Your task to perform on an android device: What's the news in Sri Lanka? Image 0: 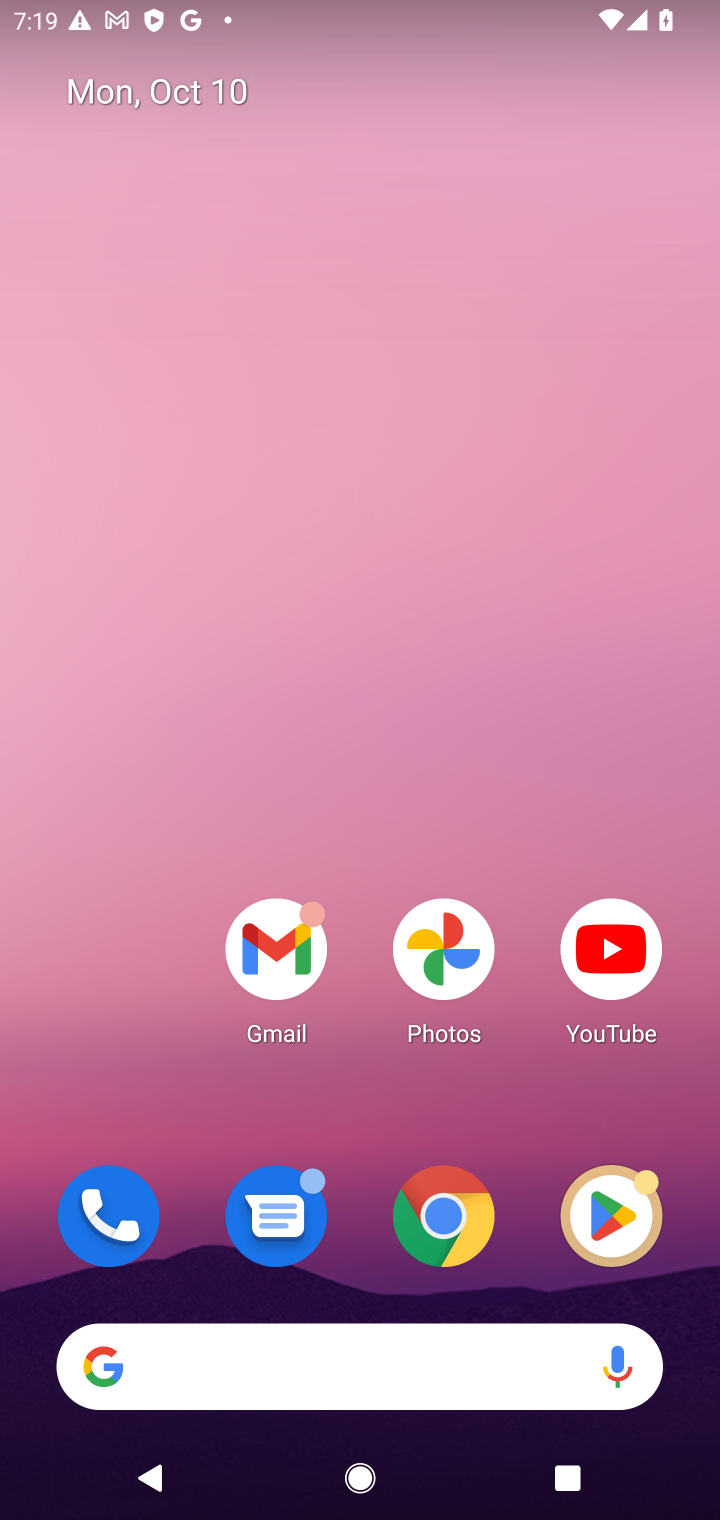
Step 0: drag from (254, 1338) to (420, 218)
Your task to perform on an android device: What's the news in Sri Lanka? Image 1: 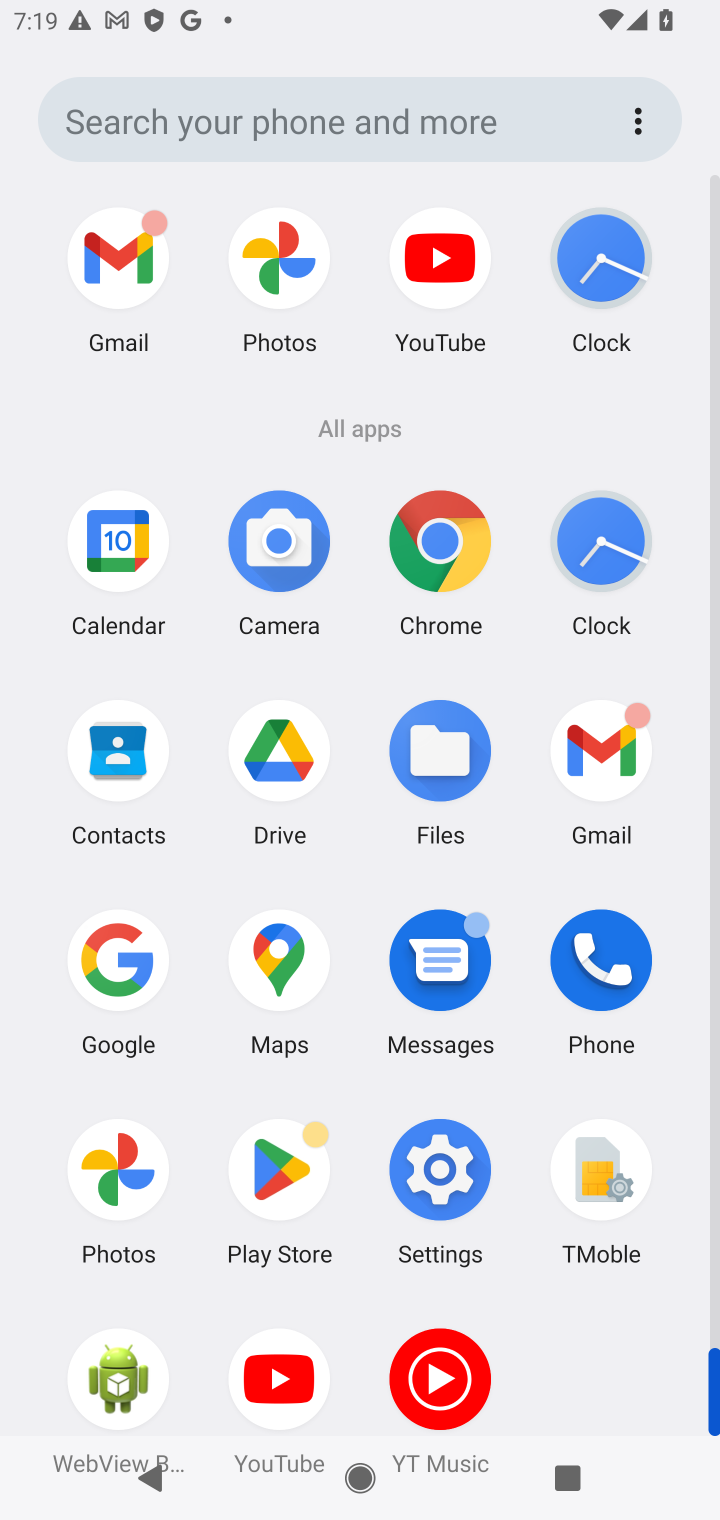
Step 1: click (109, 937)
Your task to perform on an android device: What's the news in Sri Lanka? Image 2: 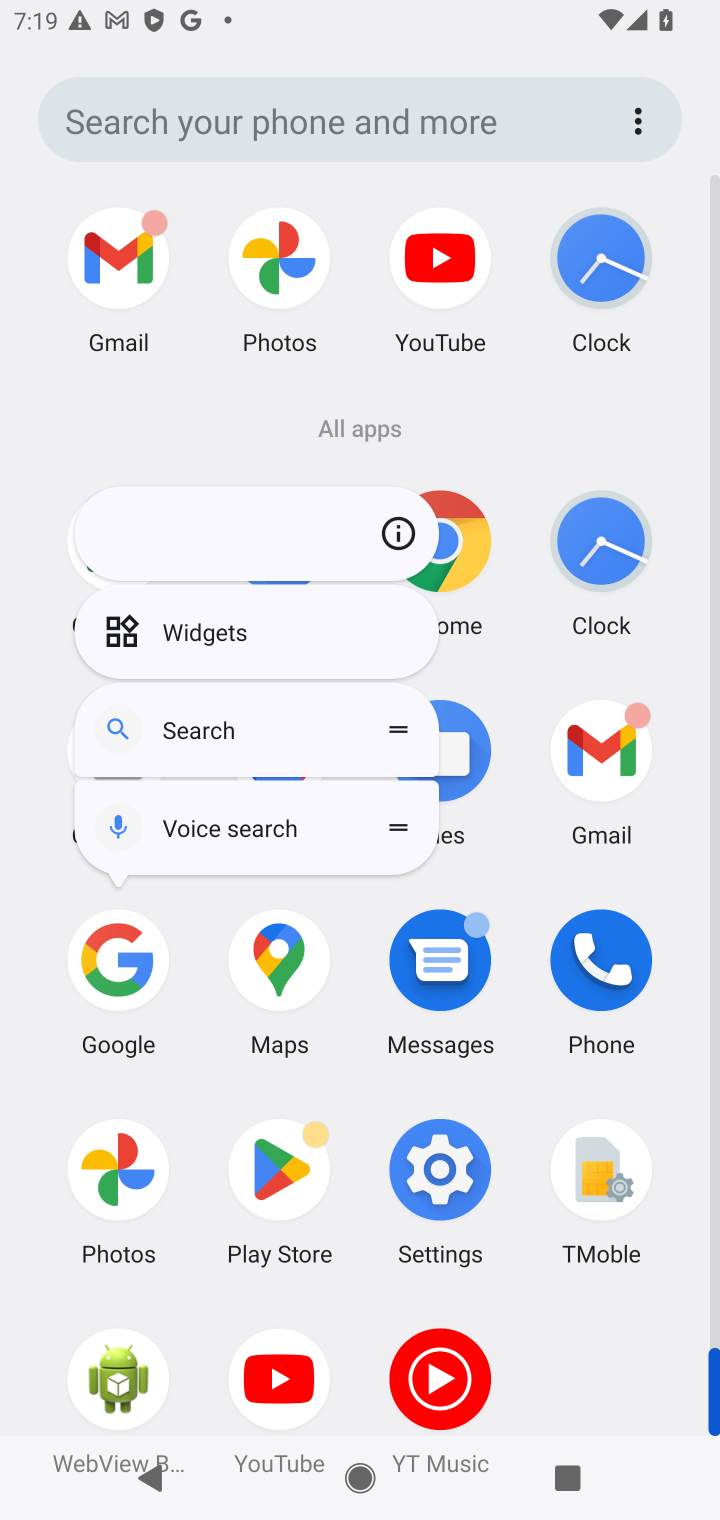
Step 2: click (109, 139)
Your task to perform on an android device: What's the news in Sri Lanka? Image 3: 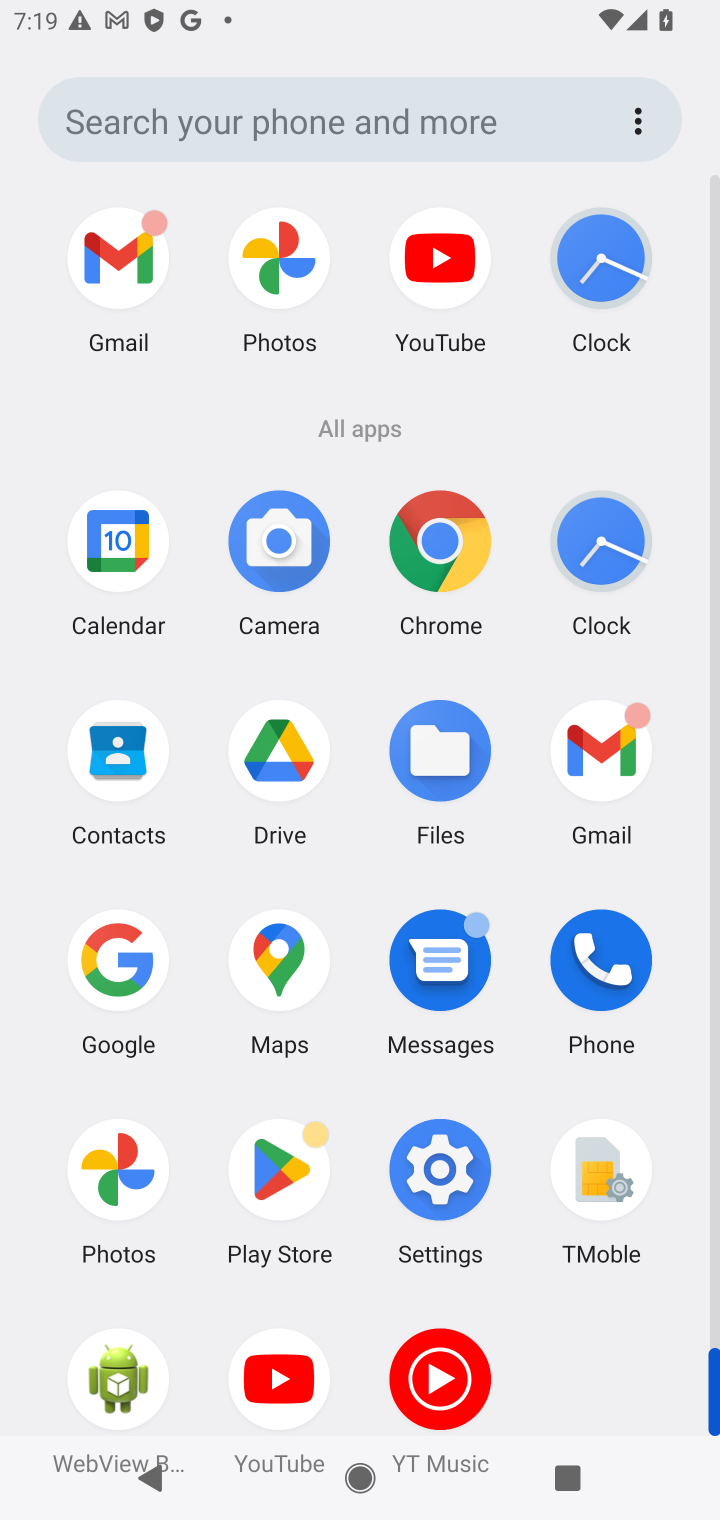
Step 3: click (92, 120)
Your task to perform on an android device: What's the news in Sri Lanka? Image 4: 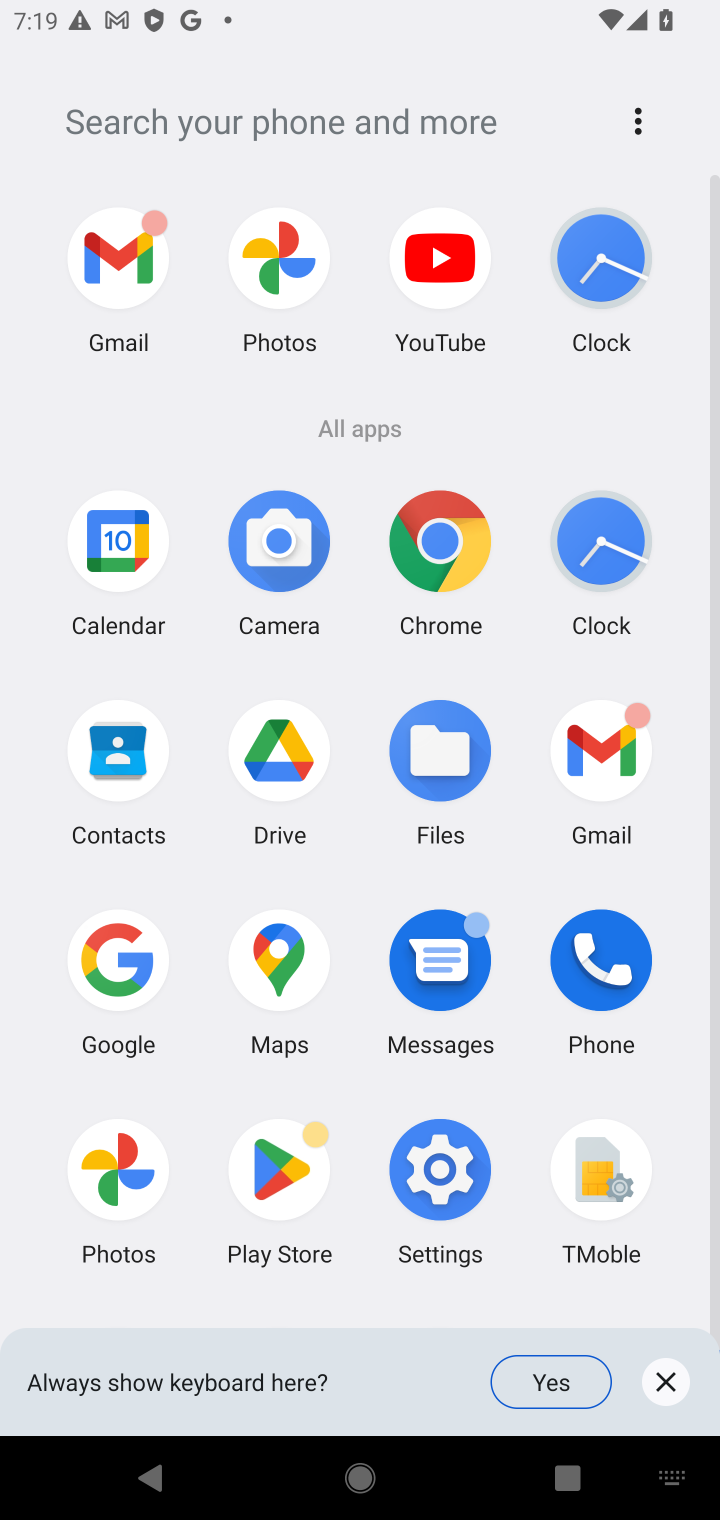
Step 4: type "What's the news in Sri Lanka?"
Your task to perform on an android device: What's the news in Sri Lanka? Image 5: 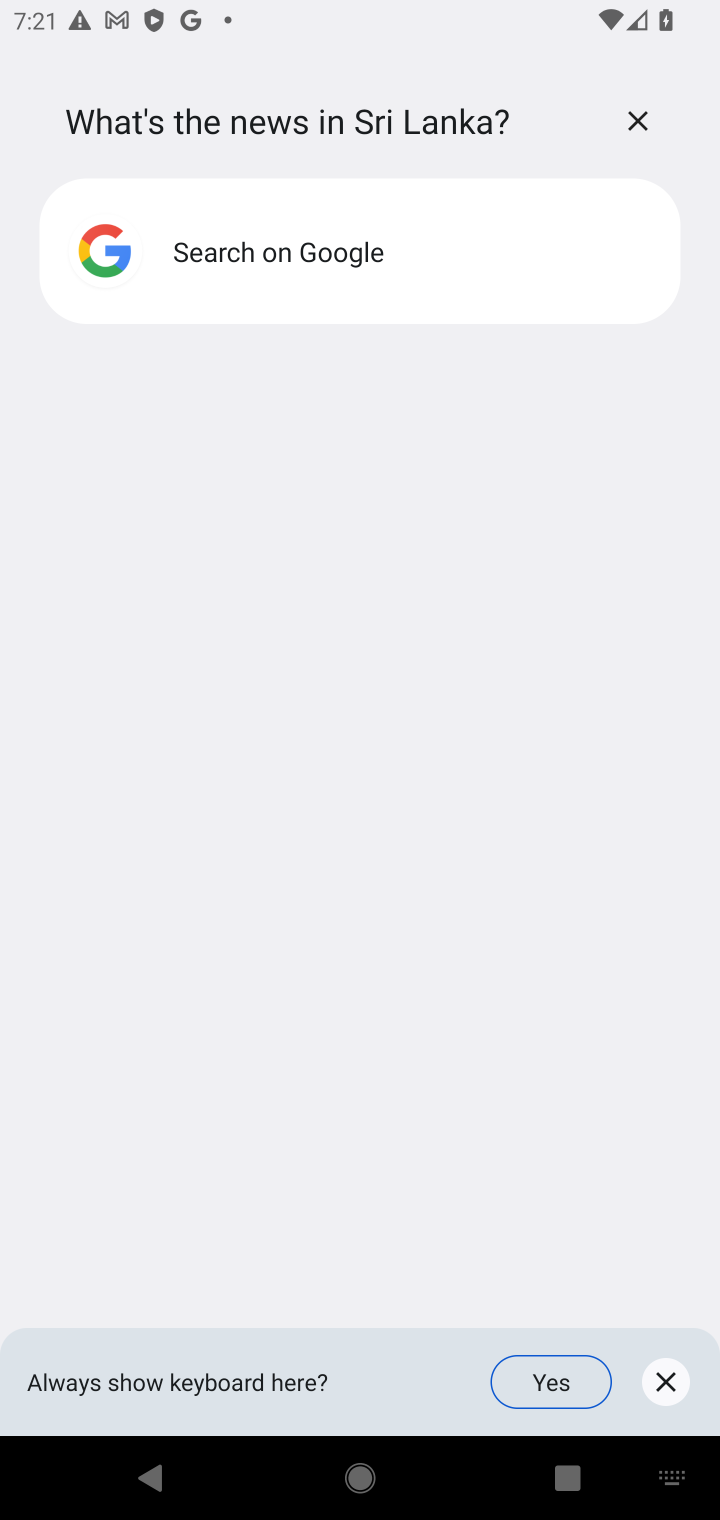
Step 5: click (340, 251)
Your task to perform on an android device: What's the news in Sri Lanka? Image 6: 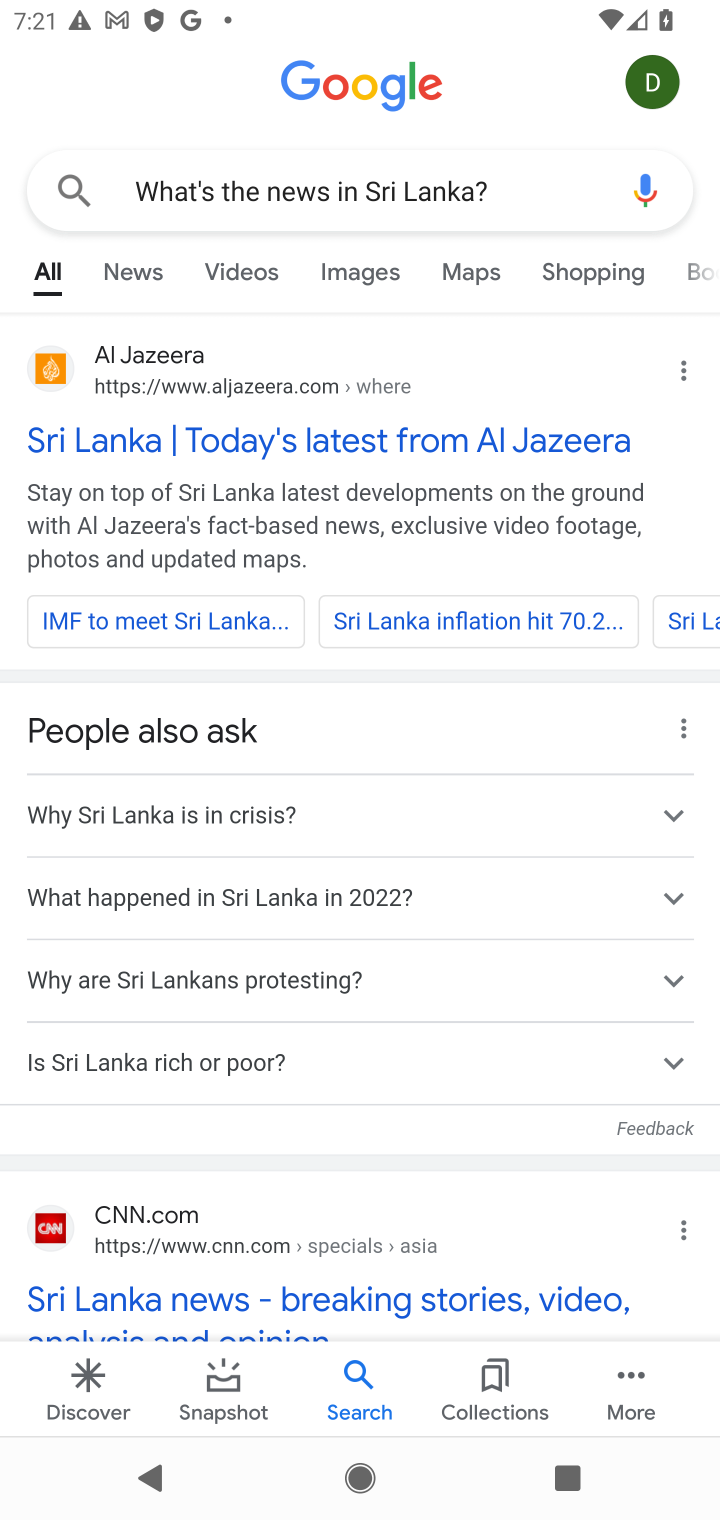
Step 6: click (268, 279)
Your task to perform on an android device: What's the news in Sri Lanka? Image 7: 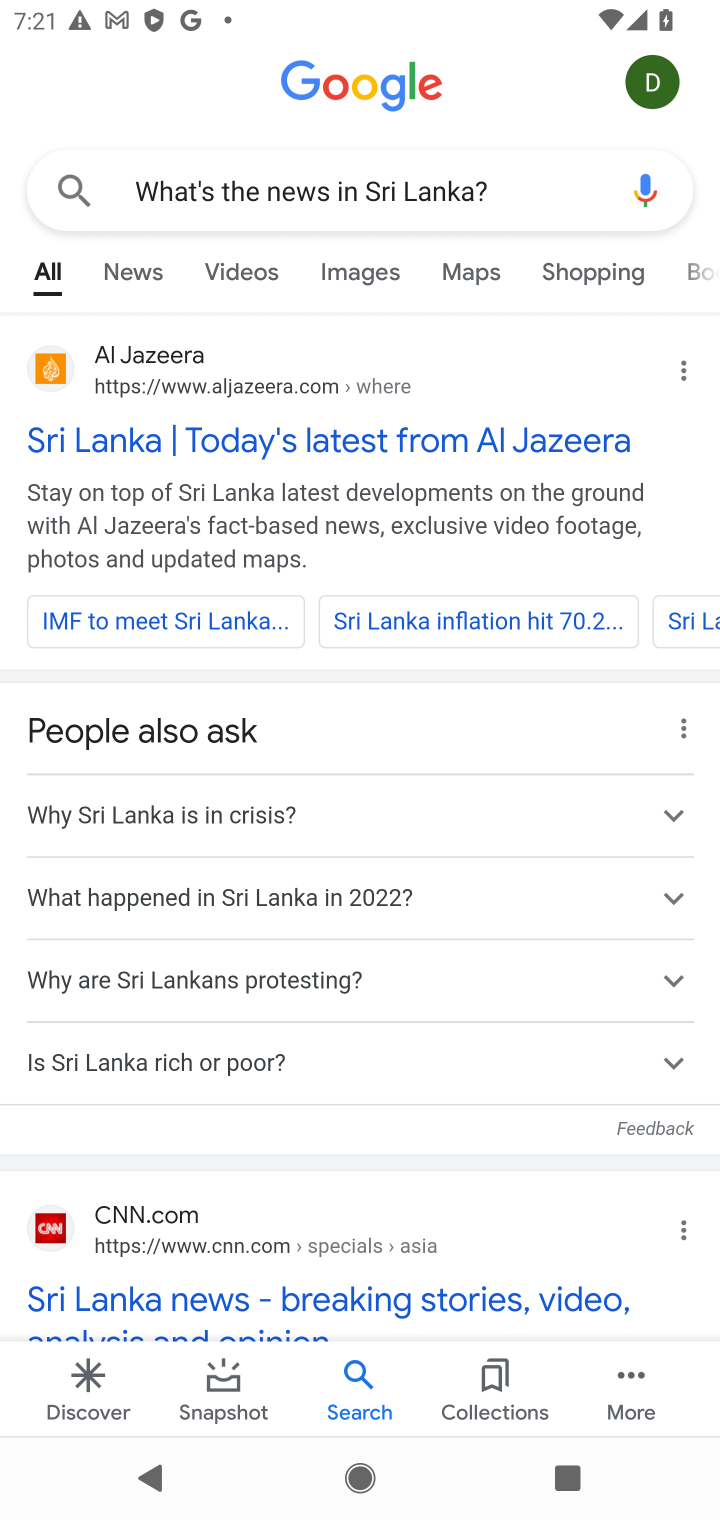
Step 7: click (294, 454)
Your task to perform on an android device: What's the news in Sri Lanka? Image 8: 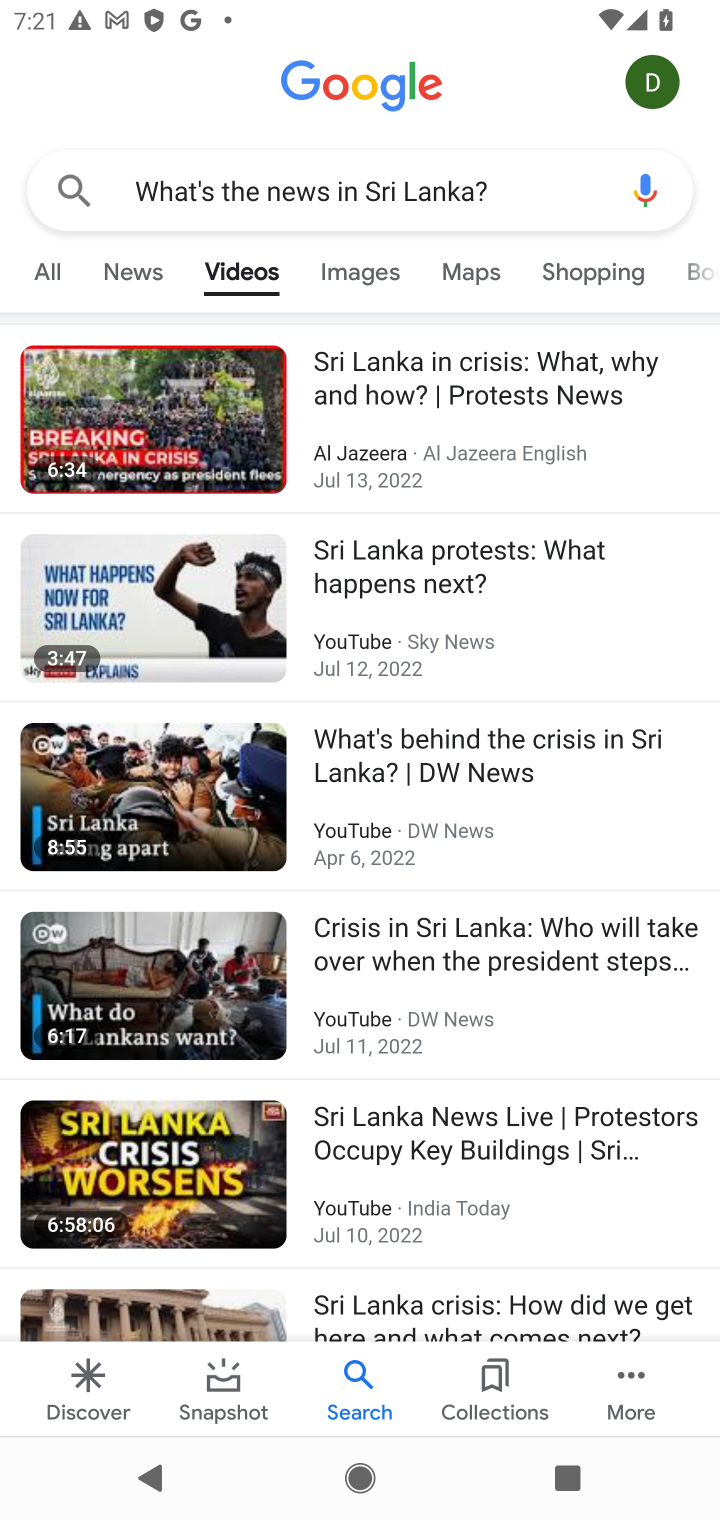
Step 8: click (40, 288)
Your task to perform on an android device: What's the news in Sri Lanka? Image 9: 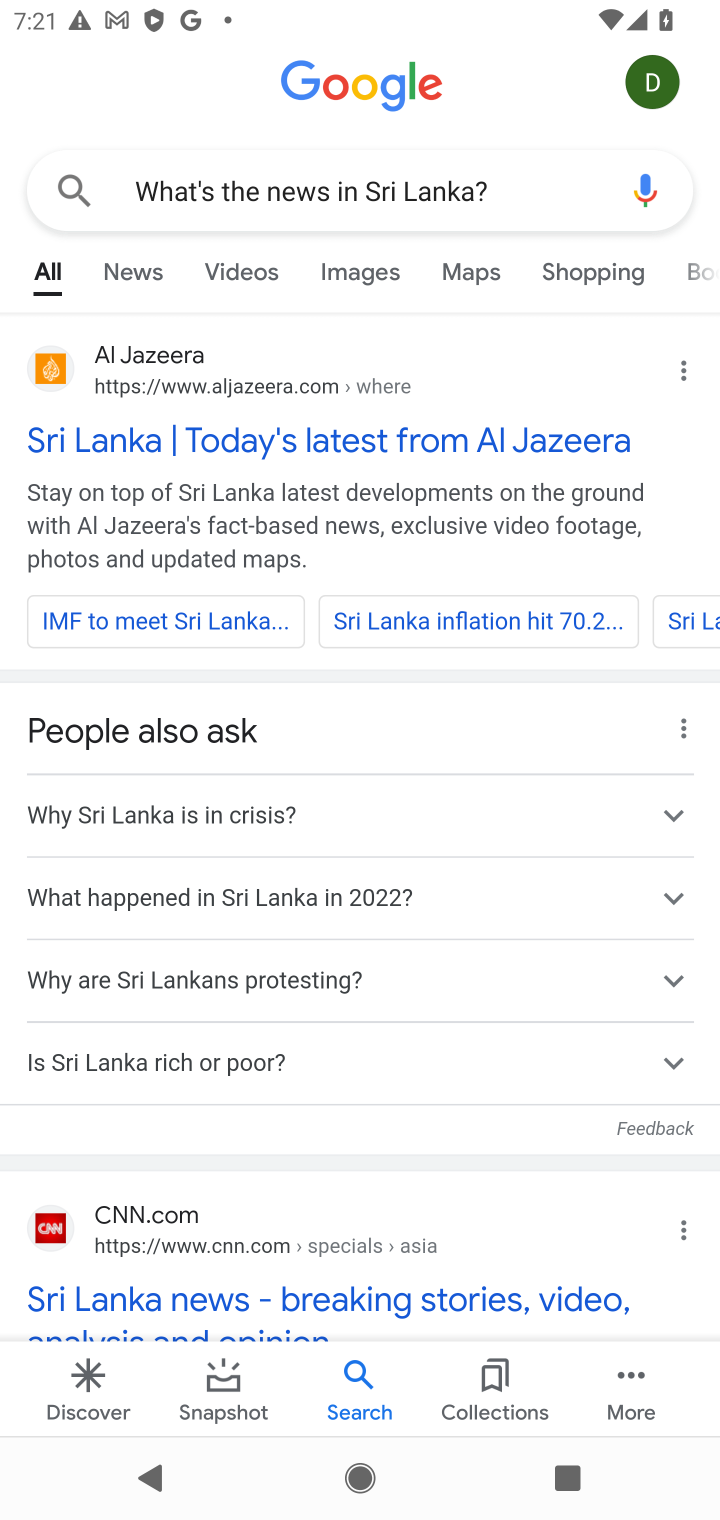
Step 9: click (273, 461)
Your task to perform on an android device: What's the news in Sri Lanka? Image 10: 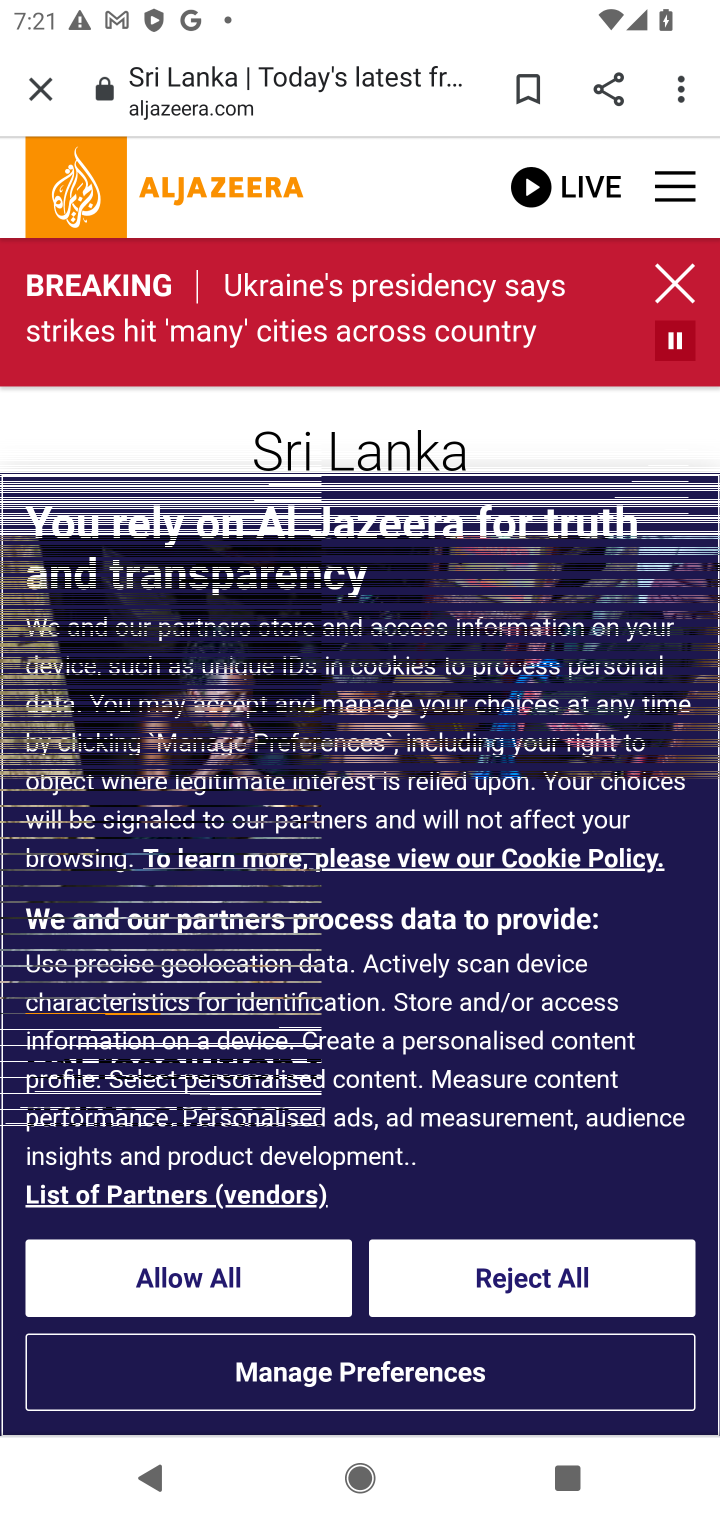
Step 10: task complete